Your task to perform on an android device: Open wifi settings Image 0: 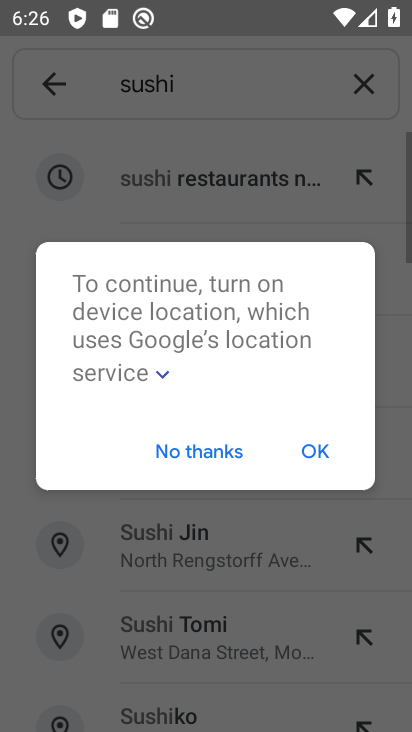
Step 0: press home button
Your task to perform on an android device: Open wifi settings Image 1: 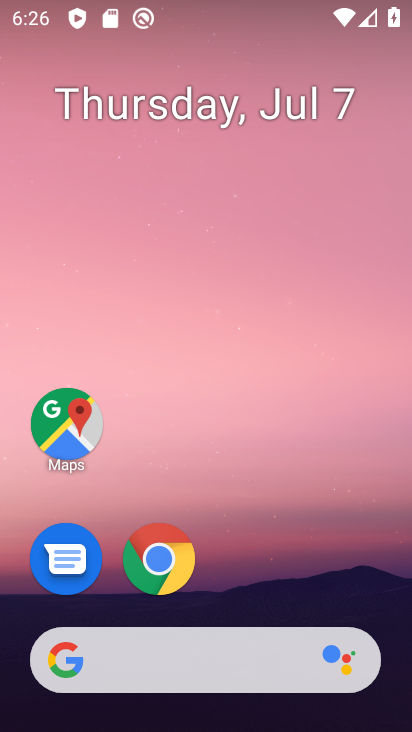
Step 1: drag from (279, 593) to (287, 235)
Your task to perform on an android device: Open wifi settings Image 2: 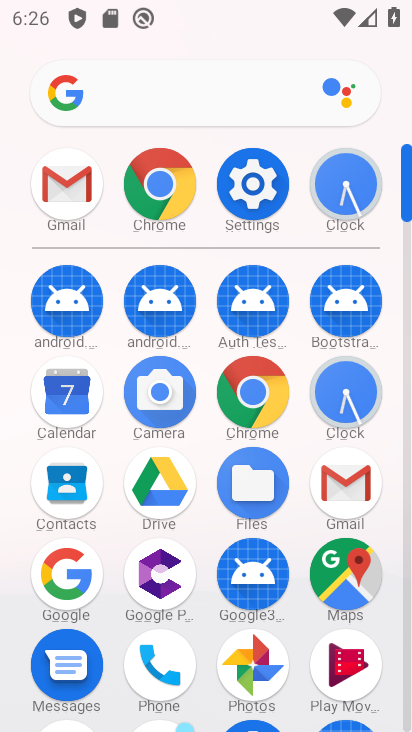
Step 2: click (251, 191)
Your task to perform on an android device: Open wifi settings Image 3: 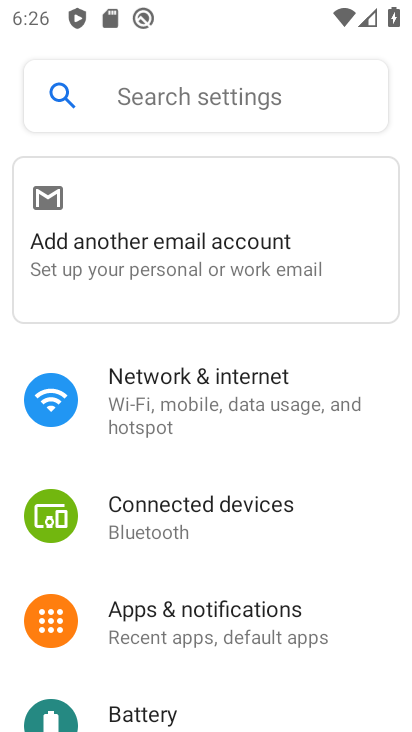
Step 3: click (256, 384)
Your task to perform on an android device: Open wifi settings Image 4: 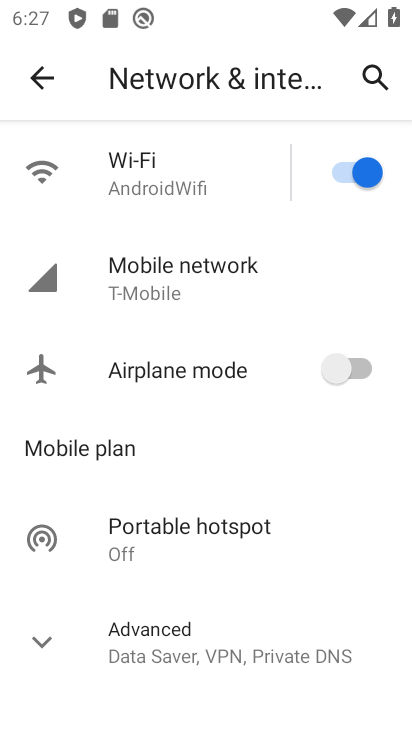
Step 4: click (216, 184)
Your task to perform on an android device: Open wifi settings Image 5: 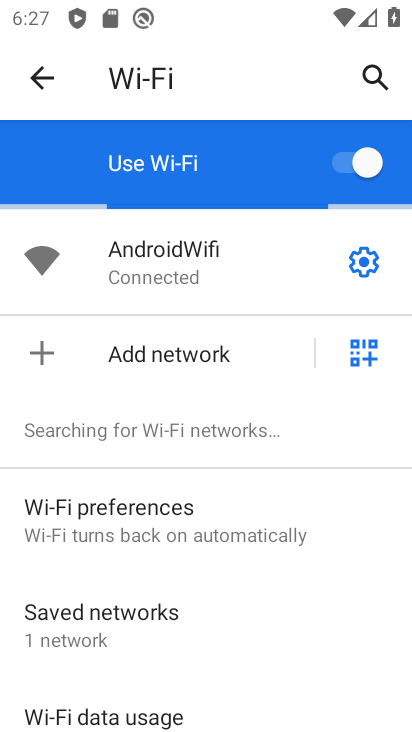
Step 5: task complete